Your task to perform on an android device: Open calendar and show me the first week of next month Image 0: 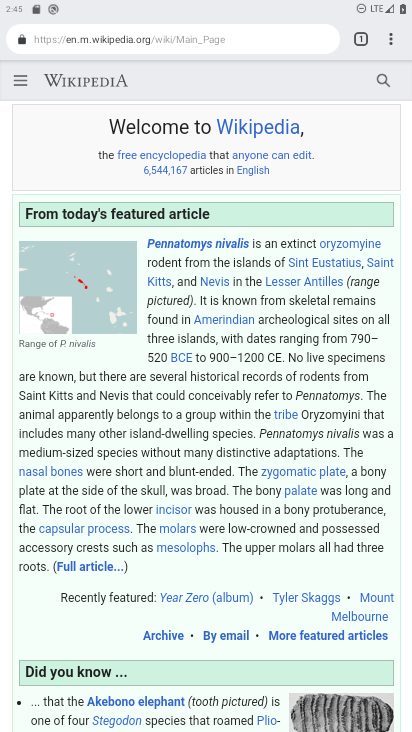
Step 0: press home button
Your task to perform on an android device: Open calendar and show me the first week of next month Image 1: 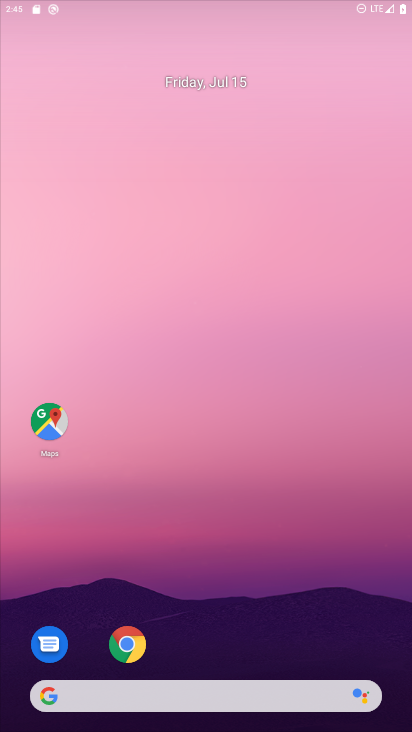
Step 1: drag from (1, 538) to (272, 96)
Your task to perform on an android device: Open calendar and show me the first week of next month Image 2: 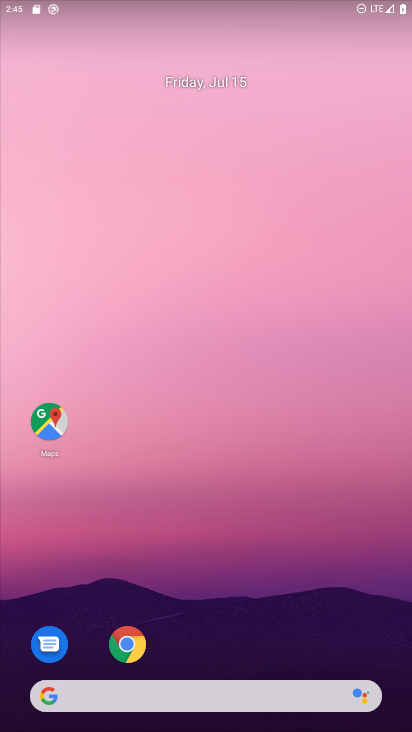
Step 2: drag from (0, 668) to (293, 135)
Your task to perform on an android device: Open calendar and show me the first week of next month Image 3: 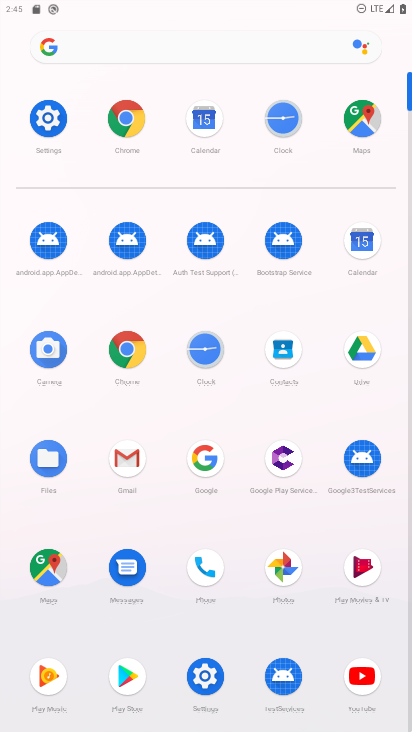
Step 3: click (367, 257)
Your task to perform on an android device: Open calendar and show me the first week of next month Image 4: 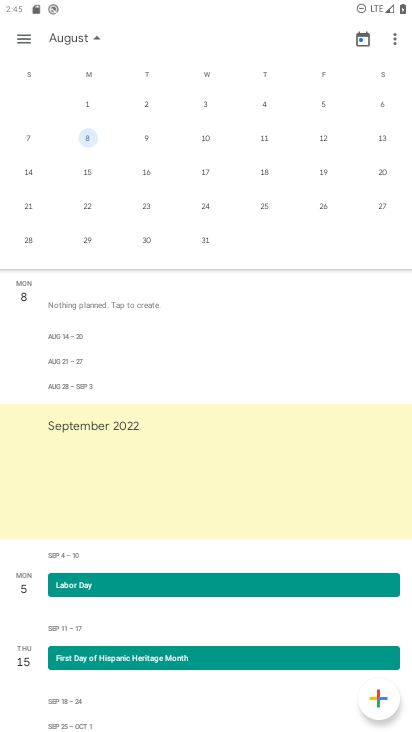
Step 4: click (92, 105)
Your task to perform on an android device: Open calendar and show me the first week of next month Image 5: 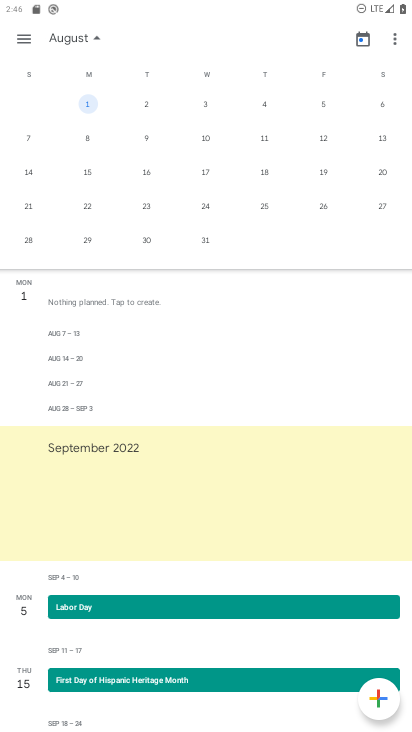
Step 5: task complete